Your task to perform on an android device: Go to network settings Image 0: 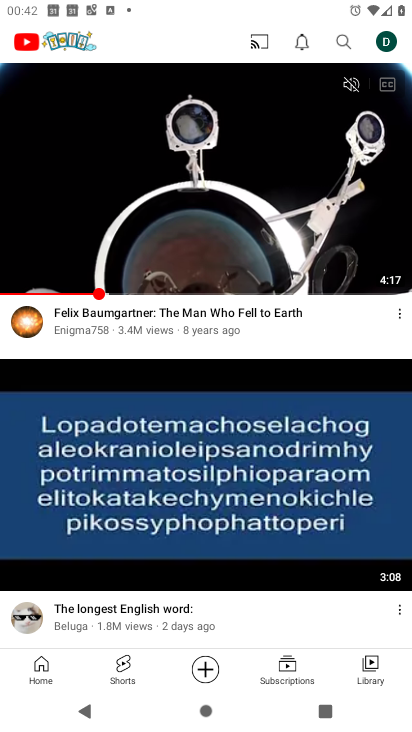
Step 0: press home button
Your task to perform on an android device: Go to network settings Image 1: 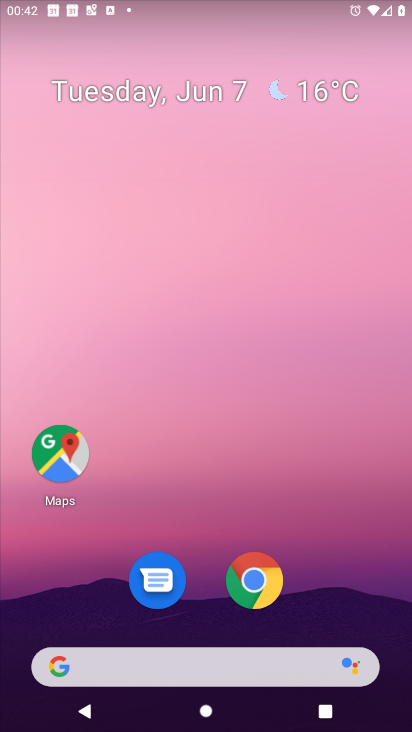
Step 1: drag from (358, 609) to (245, 6)
Your task to perform on an android device: Go to network settings Image 2: 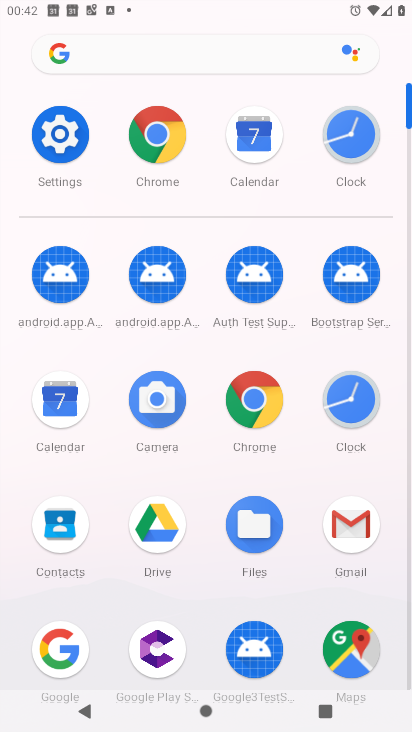
Step 2: click (49, 143)
Your task to perform on an android device: Go to network settings Image 3: 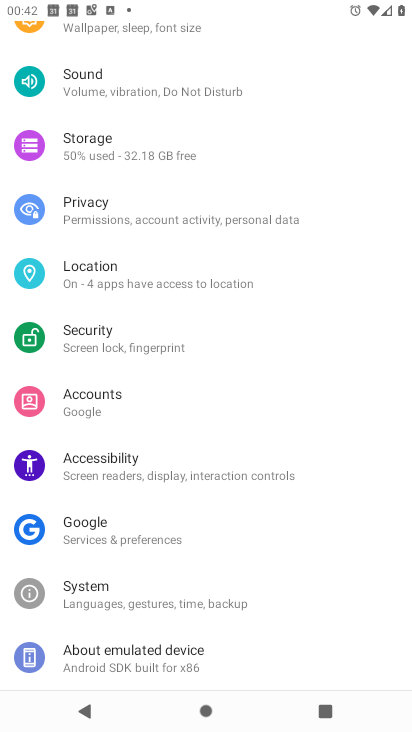
Step 3: drag from (165, 107) to (256, 644)
Your task to perform on an android device: Go to network settings Image 4: 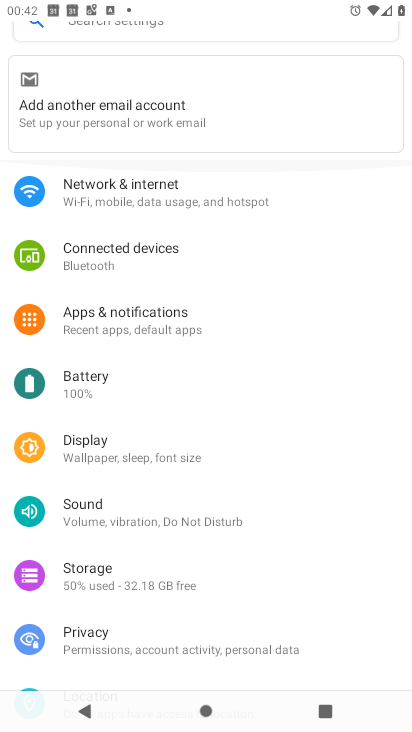
Step 4: drag from (191, 158) to (286, 582)
Your task to perform on an android device: Go to network settings Image 5: 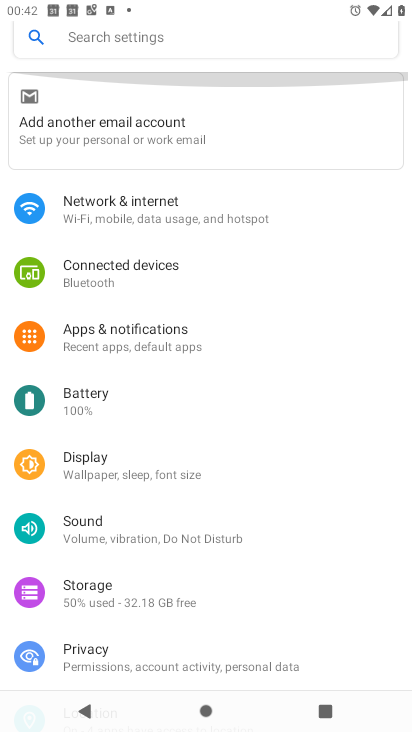
Step 5: drag from (193, 76) to (346, 594)
Your task to perform on an android device: Go to network settings Image 6: 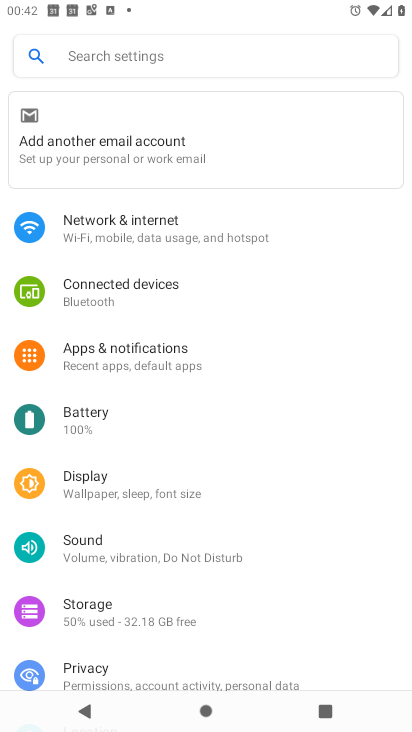
Step 6: click (128, 229)
Your task to perform on an android device: Go to network settings Image 7: 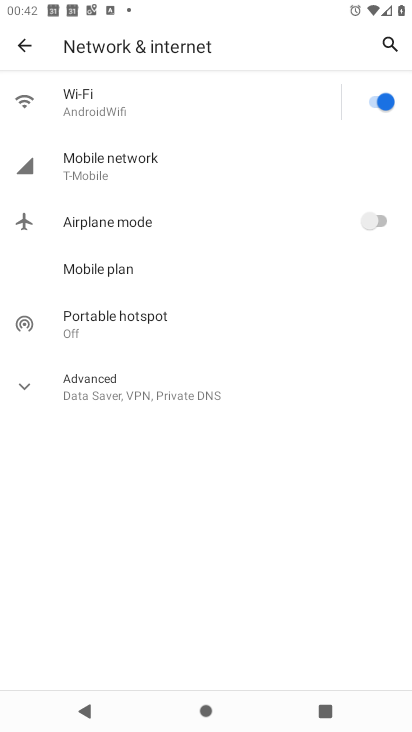
Step 7: task complete